Your task to perform on an android device: check battery use Image 0: 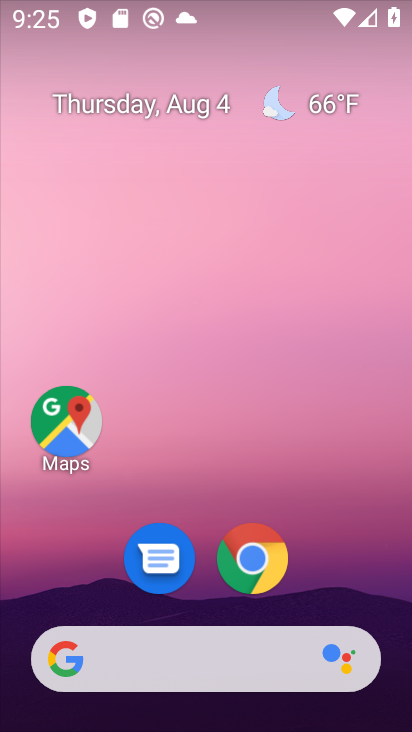
Step 0: drag from (341, 583) to (195, 60)
Your task to perform on an android device: check battery use Image 1: 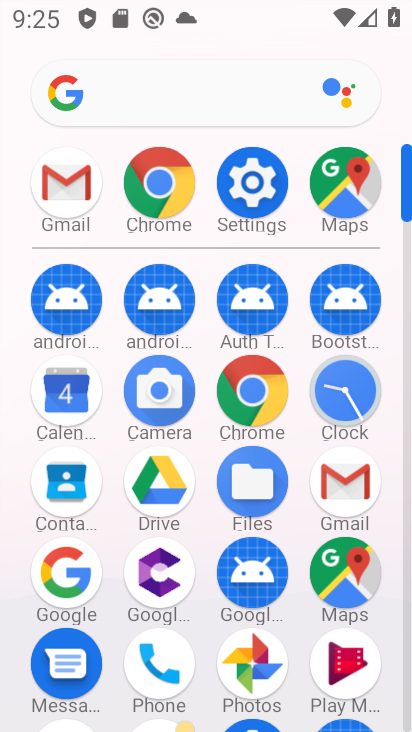
Step 1: drag from (198, 536) to (235, 217)
Your task to perform on an android device: check battery use Image 2: 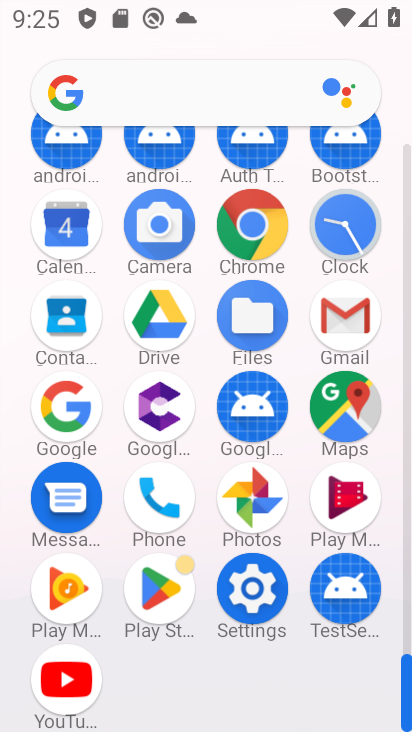
Step 2: click (249, 603)
Your task to perform on an android device: check battery use Image 3: 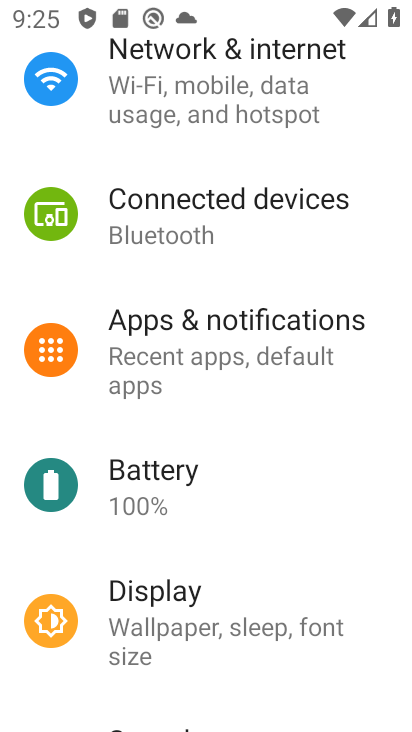
Step 3: click (141, 468)
Your task to perform on an android device: check battery use Image 4: 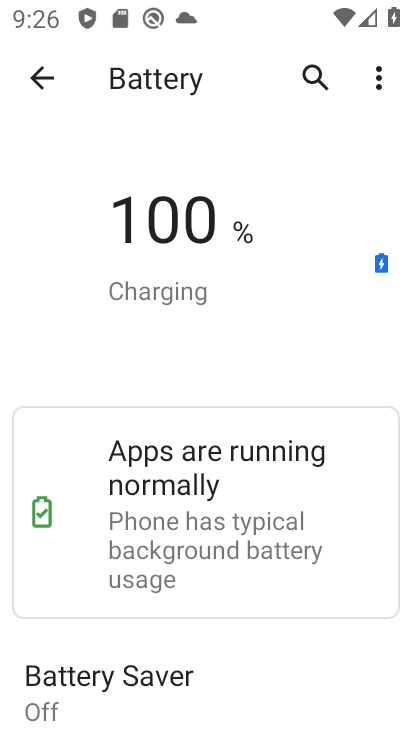
Step 4: click (388, 75)
Your task to perform on an android device: check battery use Image 5: 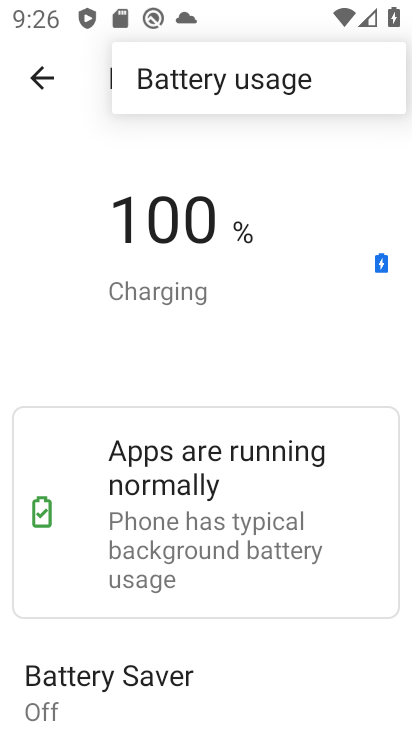
Step 5: click (248, 92)
Your task to perform on an android device: check battery use Image 6: 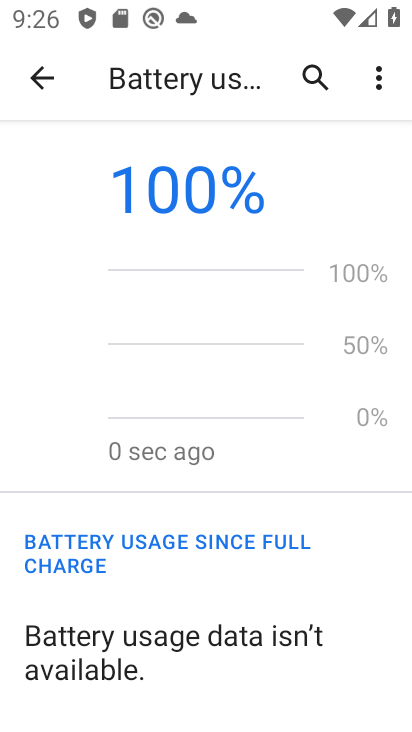
Step 6: task complete